Your task to perform on an android device: change the clock style Image 0: 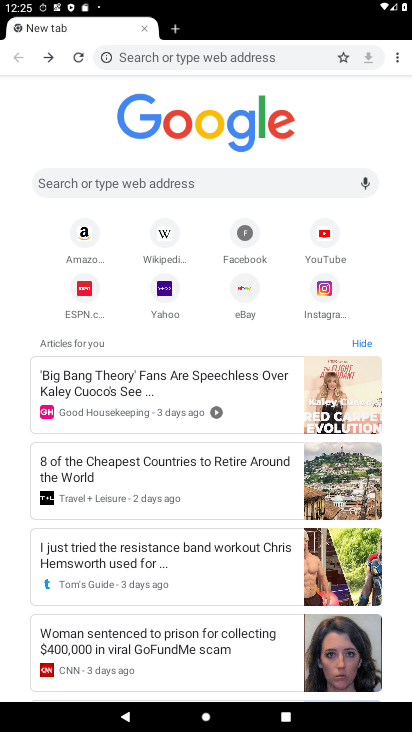
Step 0: press back button
Your task to perform on an android device: change the clock style Image 1: 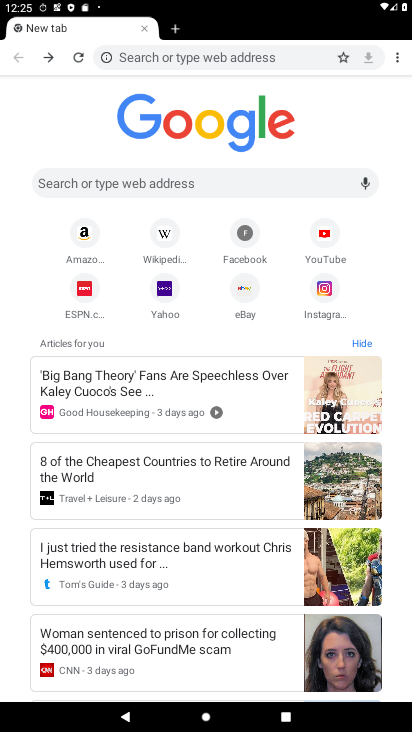
Step 1: press back button
Your task to perform on an android device: change the clock style Image 2: 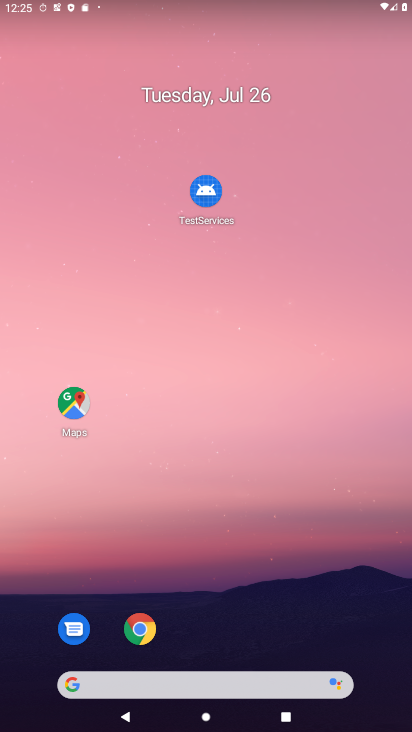
Step 2: drag from (236, 593) to (190, 0)
Your task to perform on an android device: change the clock style Image 3: 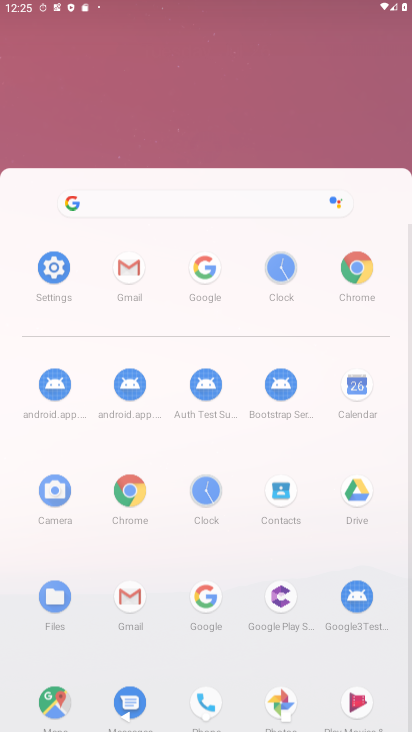
Step 3: drag from (238, 486) to (192, 79)
Your task to perform on an android device: change the clock style Image 4: 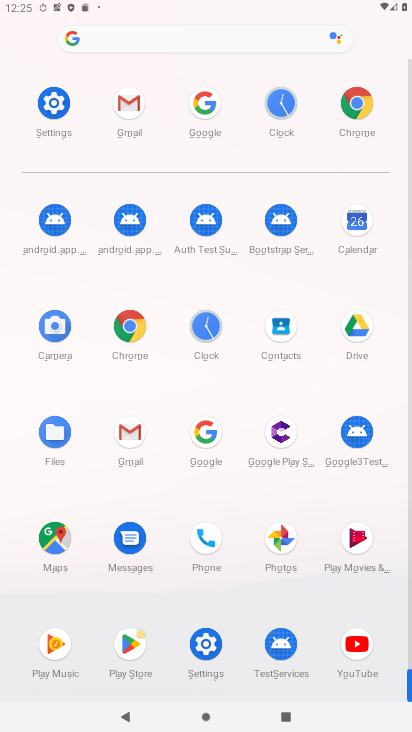
Step 4: drag from (210, 476) to (213, 169)
Your task to perform on an android device: change the clock style Image 5: 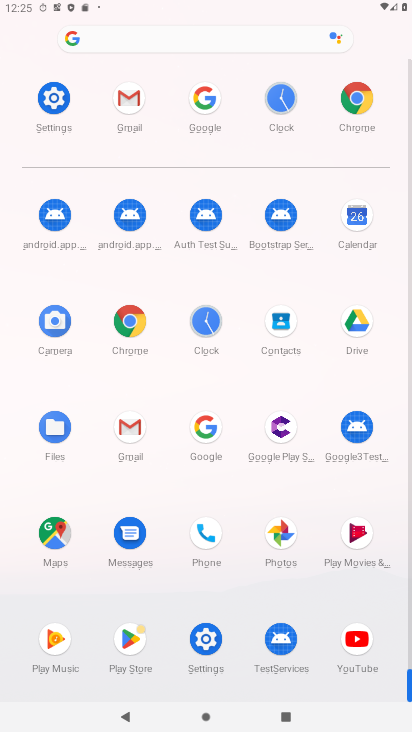
Step 5: click (201, 325)
Your task to perform on an android device: change the clock style Image 6: 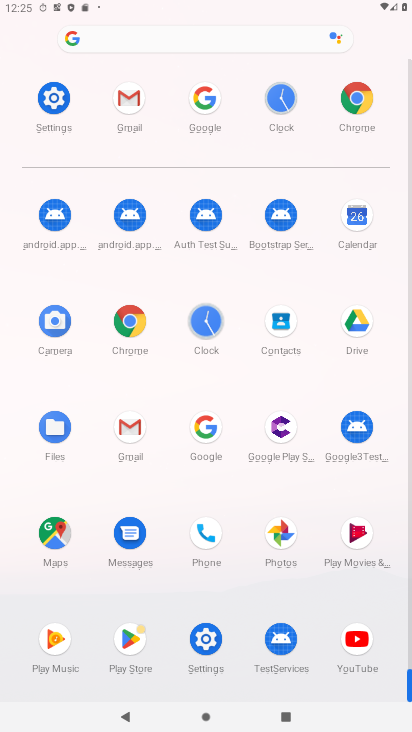
Step 6: click (202, 325)
Your task to perform on an android device: change the clock style Image 7: 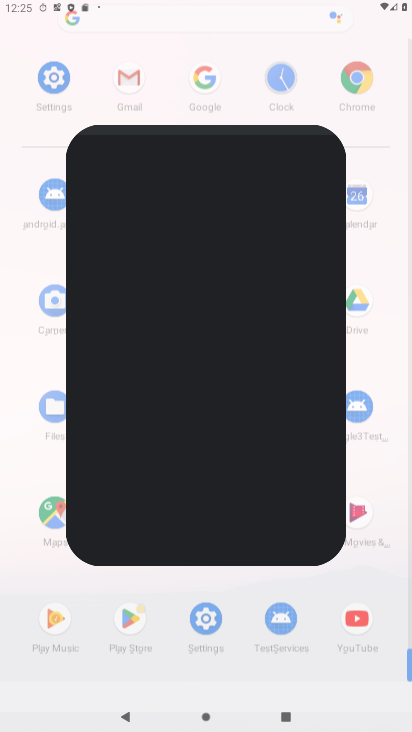
Step 7: click (203, 326)
Your task to perform on an android device: change the clock style Image 8: 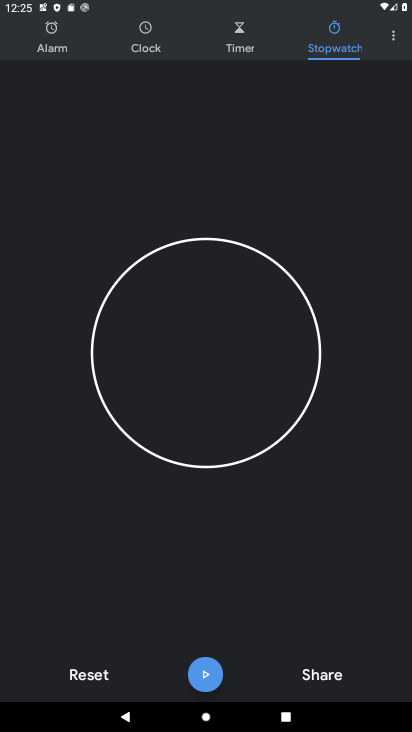
Step 8: click (387, 33)
Your task to perform on an android device: change the clock style Image 9: 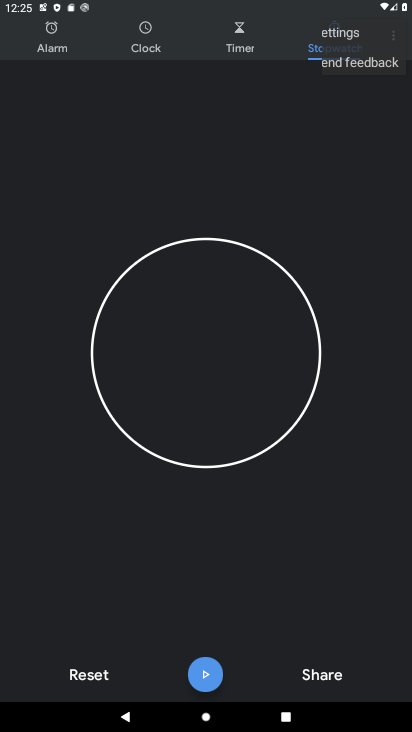
Step 9: click (387, 33)
Your task to perform on an android device: change the clock style Image 10: 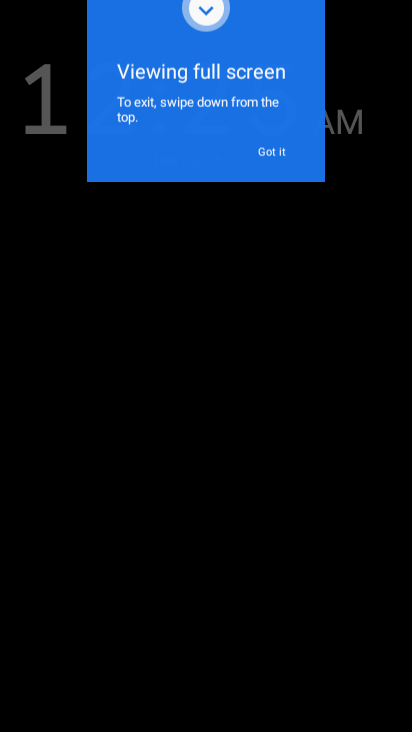
Step 10: press back button
Your task to perform on an android device: change the clock style Image 11: 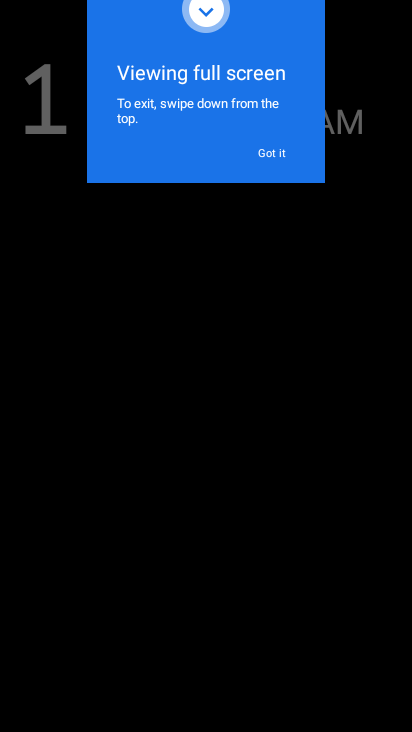
Step 11: click (271, 154)
Your task to perform on an android device: change the clock style Image 12: 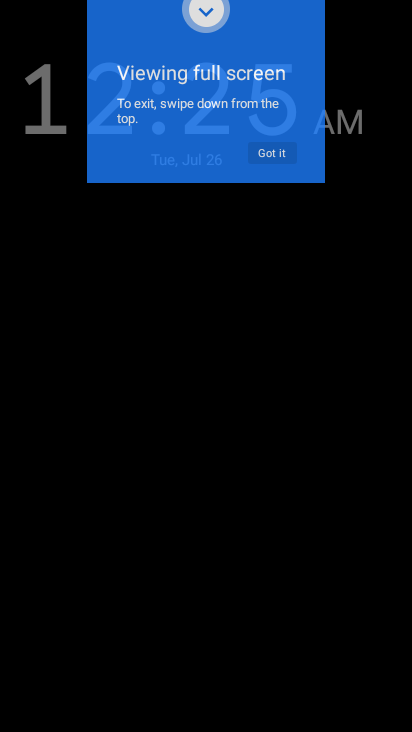
Step 12: click (270, 153)
Your task to perform on an android device: change the clock style Image 13: 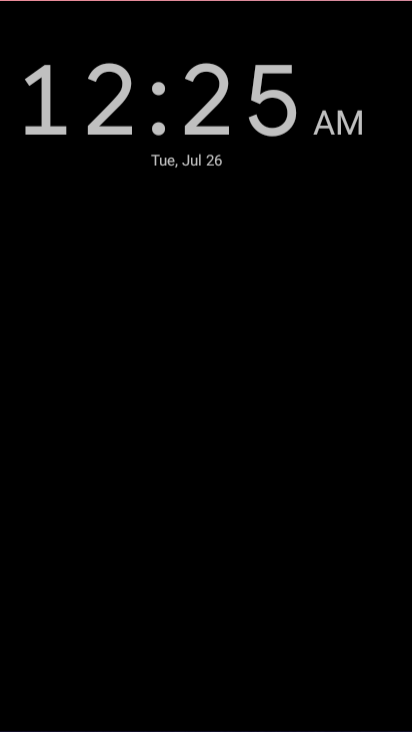
Step 13: click (272, 152)
Your task to perform on an android device: change the clock style Image 14: 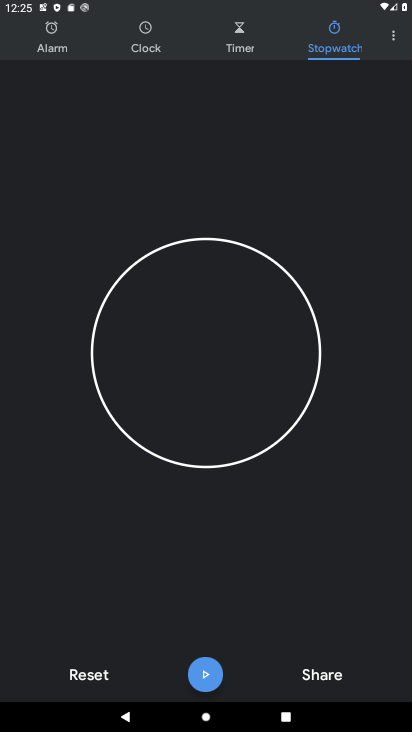
Step 14: click (384, 38)
Your task to perform on an android device: change the clock style Image 15: 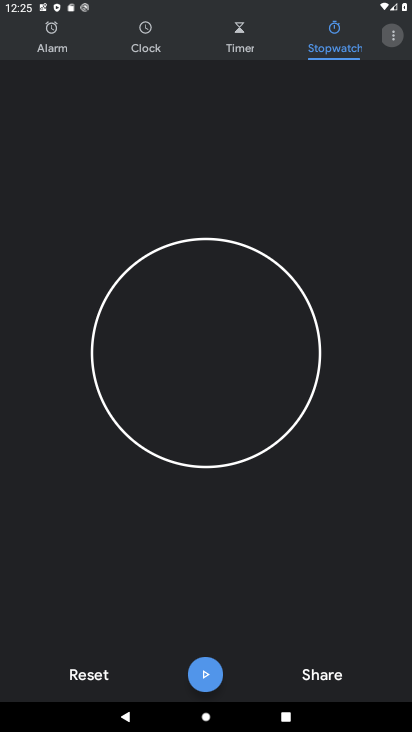
Step 15: click (386, 38)
Your task to perform on an android device: change the clock style Image 16: 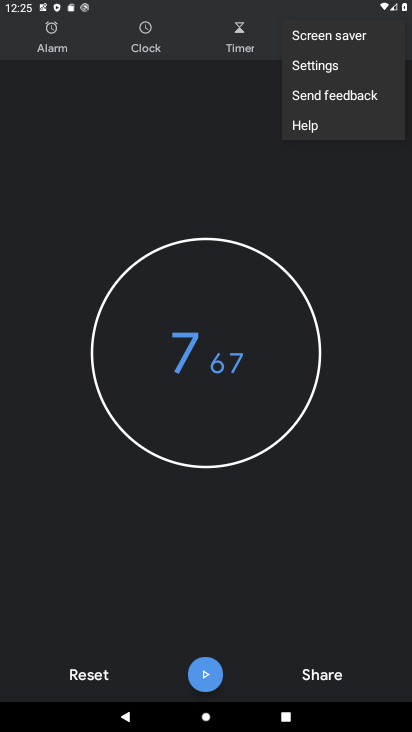
Step 16: click (321, 70)
Your task to perform on an android device: change the clock style Image 17: 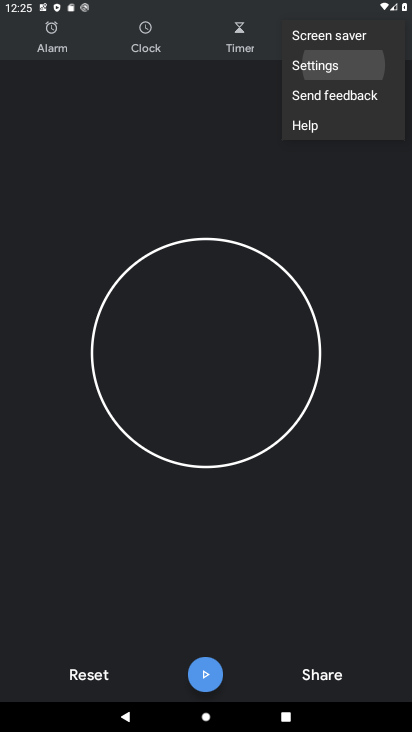
Step 17: click (321, 69)
Your task to perform on an android device: change the clock style Image 18: 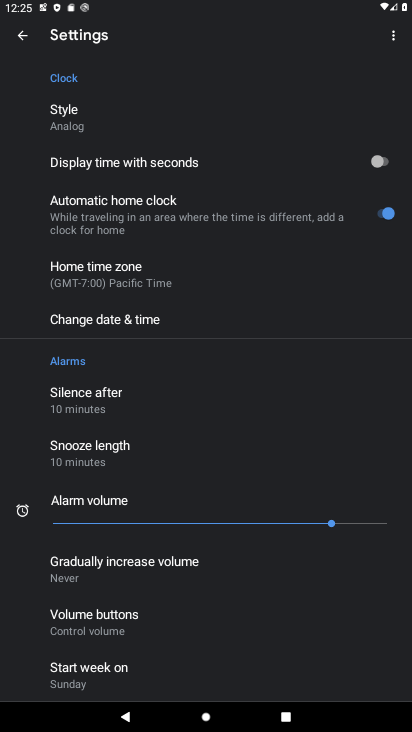
Step 18: click (104, 115)
Your task to perform on an android device: change the clock style Image 19: 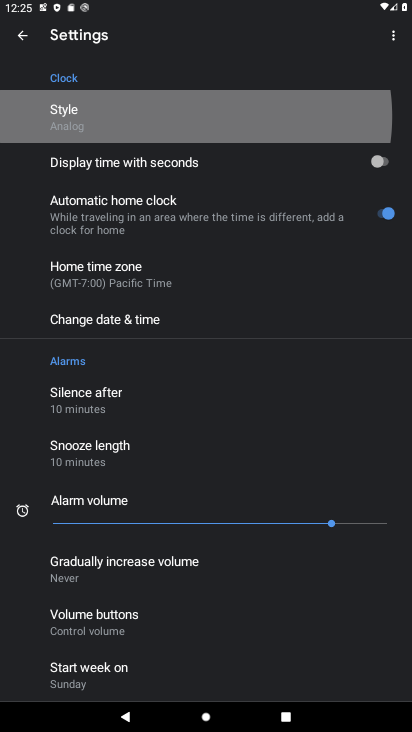
Step 19: click (104, 115)
Your task to perform on an android device: change the clock style Image 20: 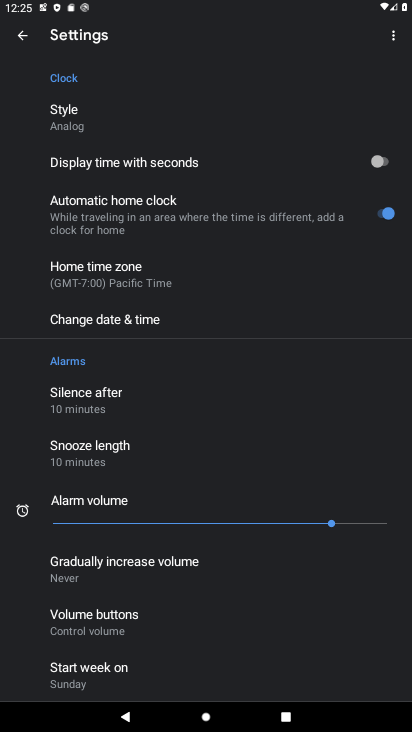
Step 20: task complete